Your task to perform on an android device: change text size in settings app Image 0: 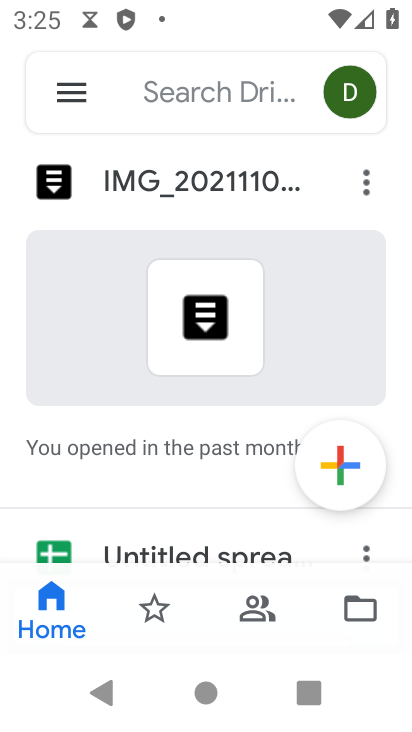
Step 0: press back button
Your task to perform on an android device: change text size in settings app Image 1: 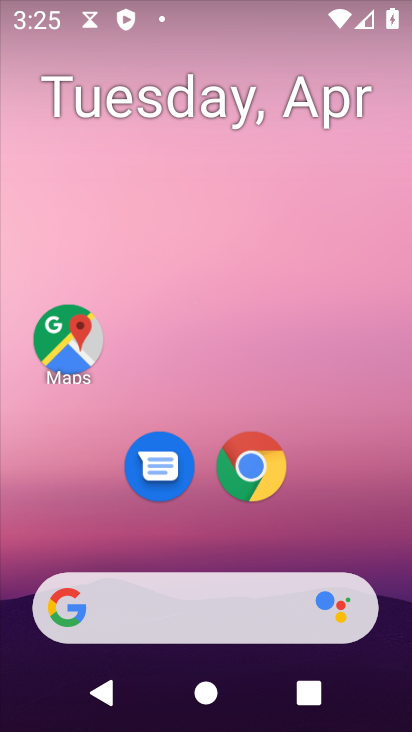
Step 1: drag from (342, 513) to (226, 15)
Your task to perform on an android device: change text size in settings app Image 2: 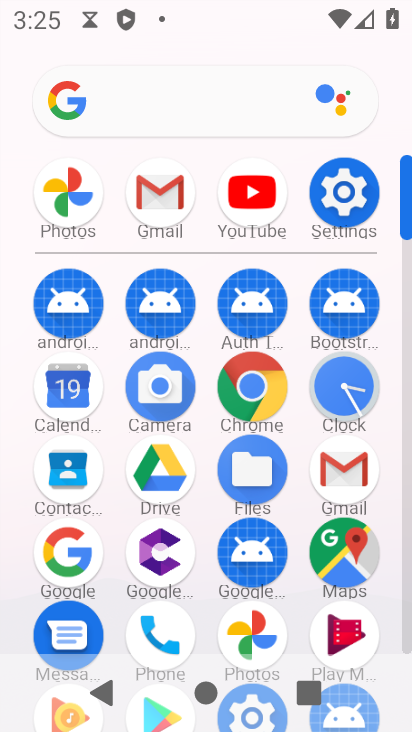
Step 2: click (342, 187)
Your task to perform on an android device: change text size in settings app Image 3: 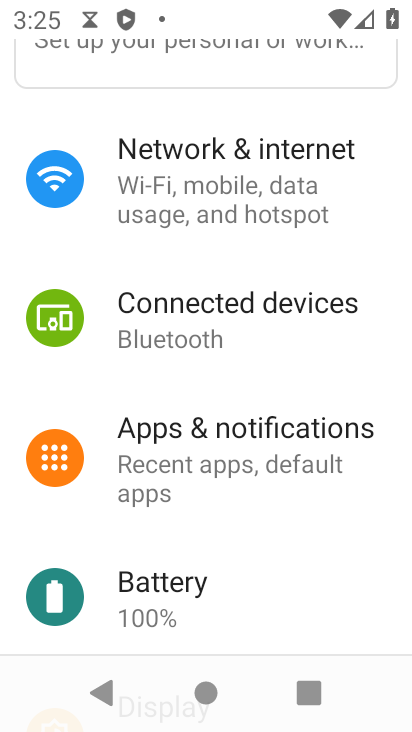
Step 3: drag from (280, 425) to (245, 89)
Your task to perform on an android device: change text size in settings app Image 4: 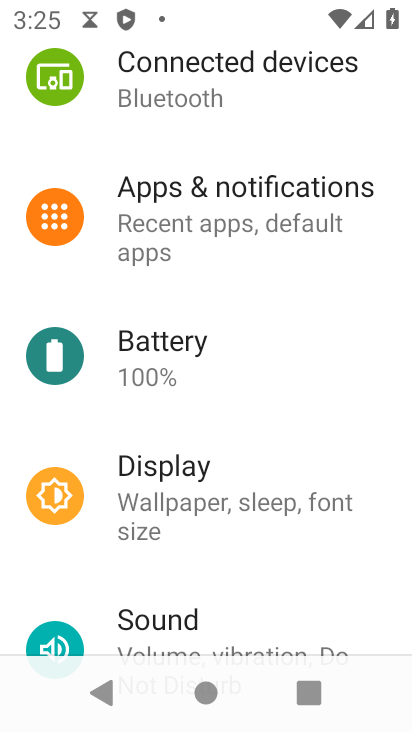
Step 4: drag from (254, 463) to (258, 166)
Your task to perform on an android device: change text size in settings app Image 5: 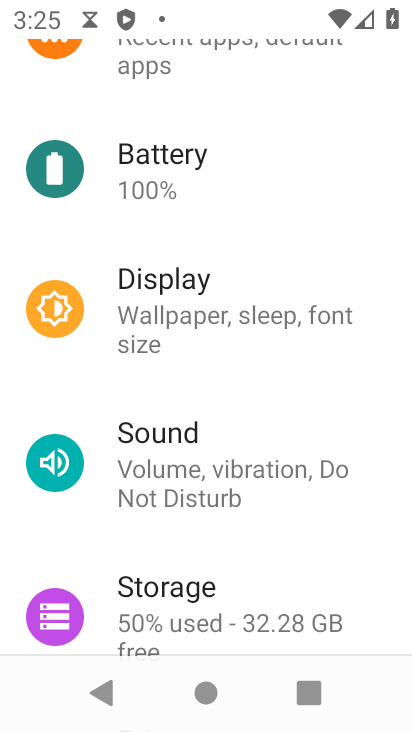
Step 5: drag from (314, 476) to (287, 168)
Your task to perform on an android device: change text size in settings app Image 6: 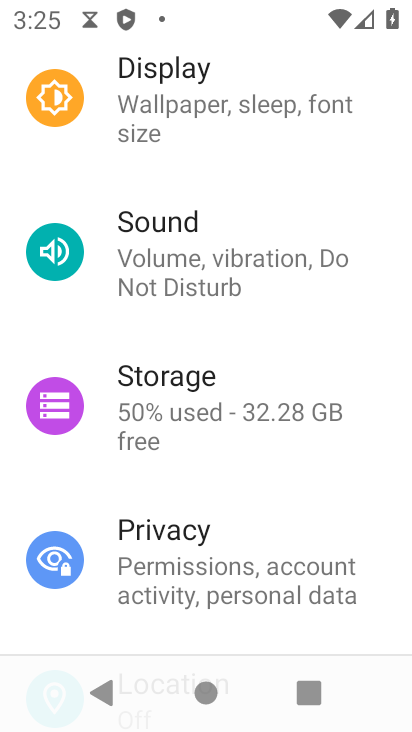
Step 6: drag from (277, 483) to (248, 144)
Your task to perform on an android device: change text size in settings app Image 7: 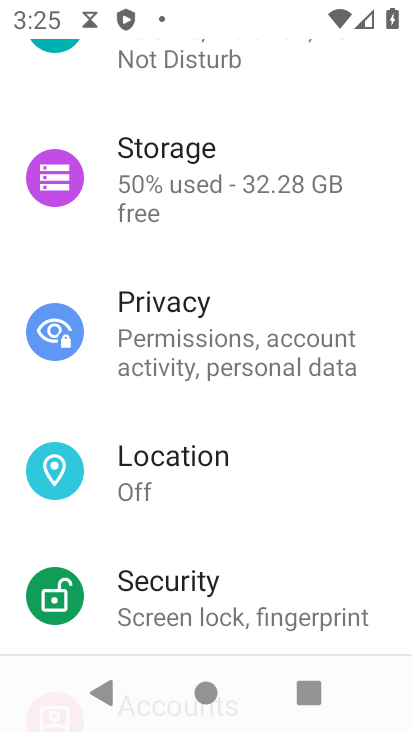
Step 7: drag from (253, 471) to (233, 142)
Your task to perform on an android device: change text size in settings app Image 8: 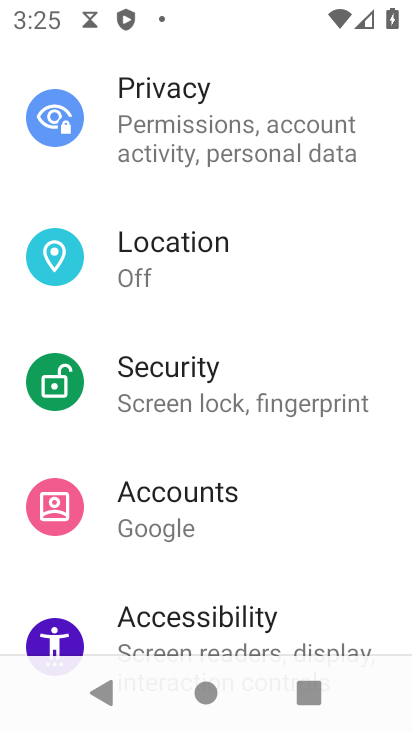
Step 8: drag from (254, 488) to (270, 159)
Your task to perform on an android device: change text size in settings app Image 9: 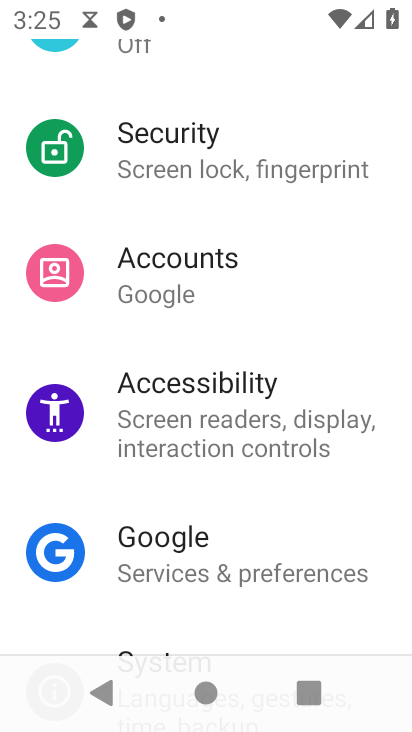
Step 9: drag from (248, 448) to (241, 182)
Your task to perform on an android device: change text size in settings app Image 10: 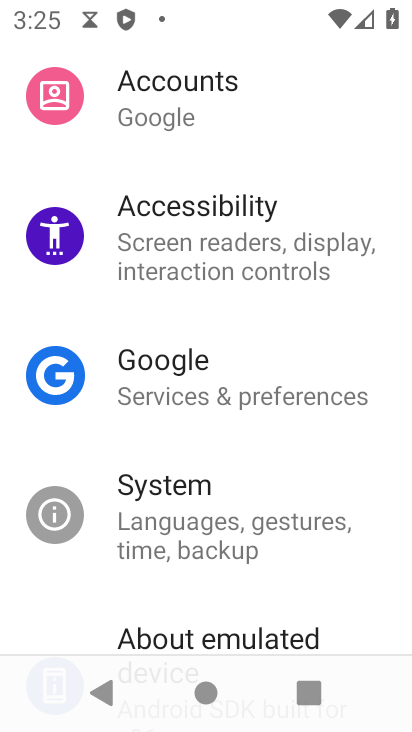
Step 10: drag from (256, 145) to (245, 507)
Your task to perform on an android device: change text size in settings app Image 11: 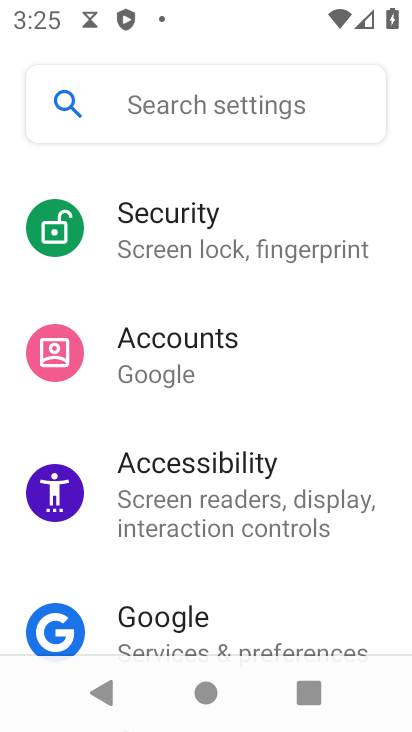
Step 11: drag from (269, 383) to (269, 534)
Your task to perform on an android device: change text size in settings app Image 12: 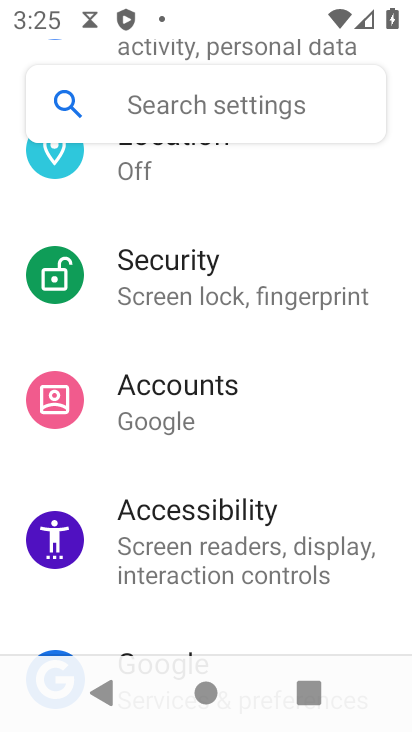
Step 12: drag from (261, 219) to (239, 510)
Your task to perform on an android device: change text size in settings app Image 13: 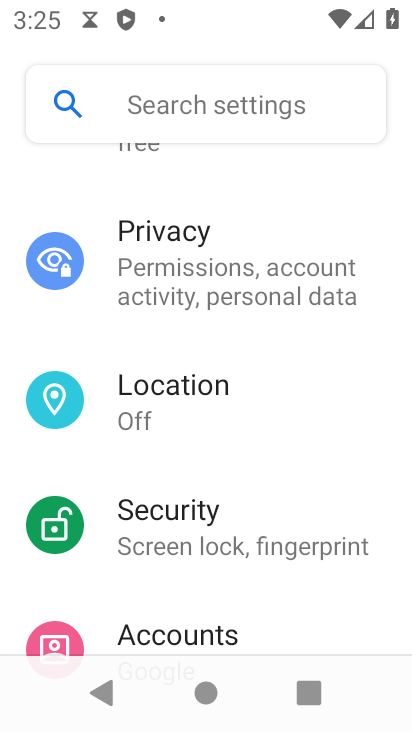
Step 13: drag from (272, 257) to (260, 498)
Your task to perform on an android device: change text size in settings app Image 14: 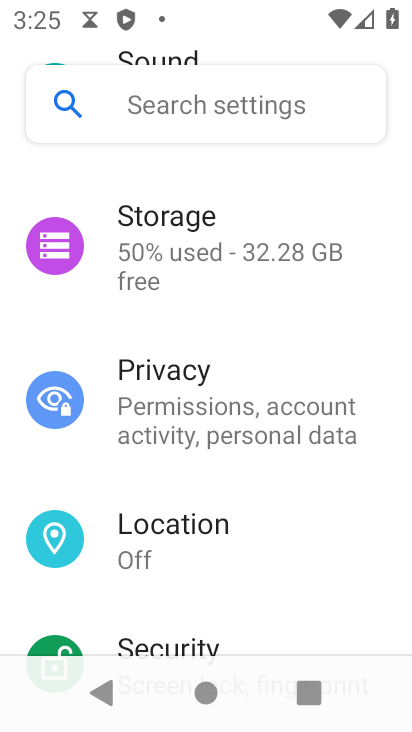
Step 14: drag from (269, 274) to (224, 585)
Your task to perform on an android device: change text size in settings app Image 15: 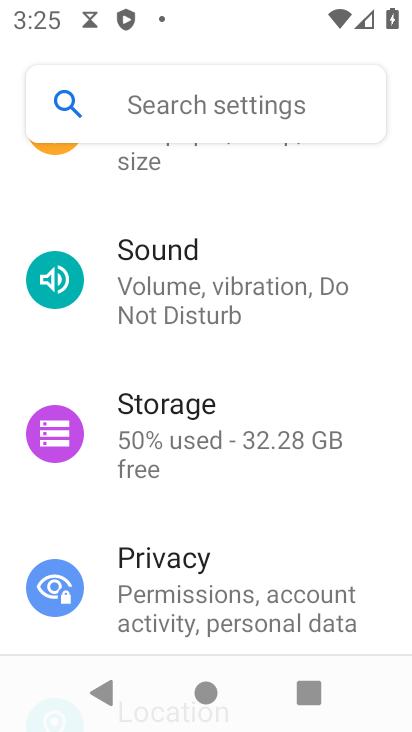
Step 15: drag from (239, 352) to (239, 506)
Your task to perform on an android device: change text size in settings app Image 16: 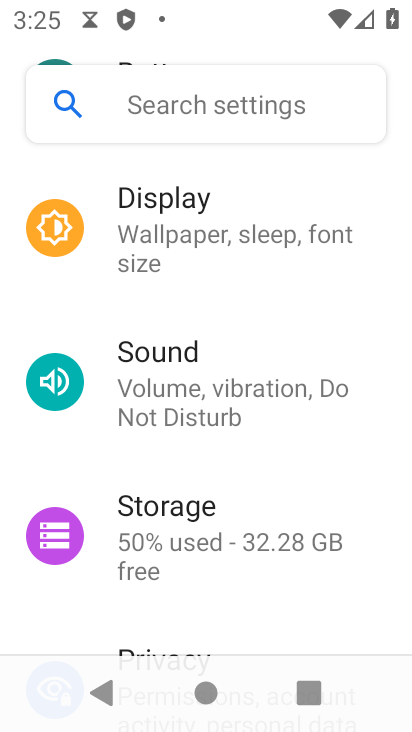
Step 16: click (218, 216)
Your task to perform on an android device: change text size in settings app Image 17: 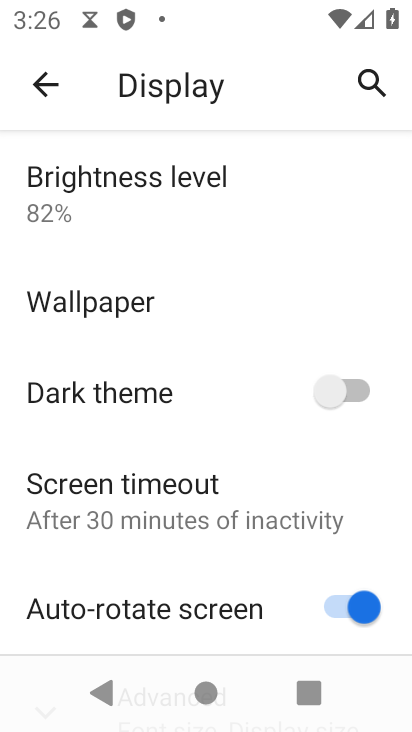
Step 17: drag from (156, 486) to (171, 263)
Your task to perform on an android device: change text size in settings app Image 18: 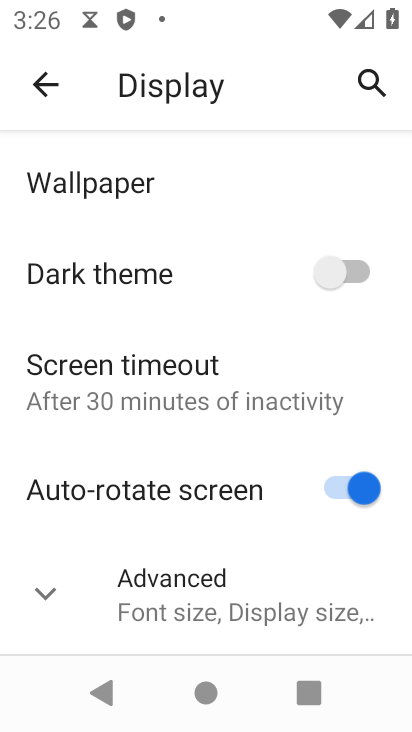
Step 18: click (122, 588)
Your task to perform on an android device: change text size in settings app Image 19: 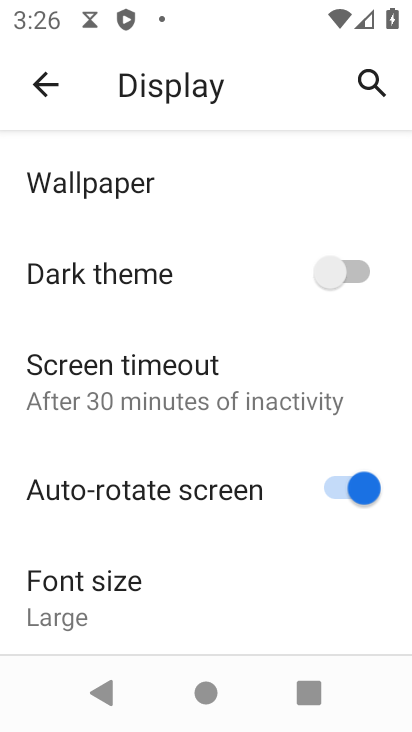
Step 19: click (139, 623)
Your task to perform on an android device: change text size in settings app Image 20: 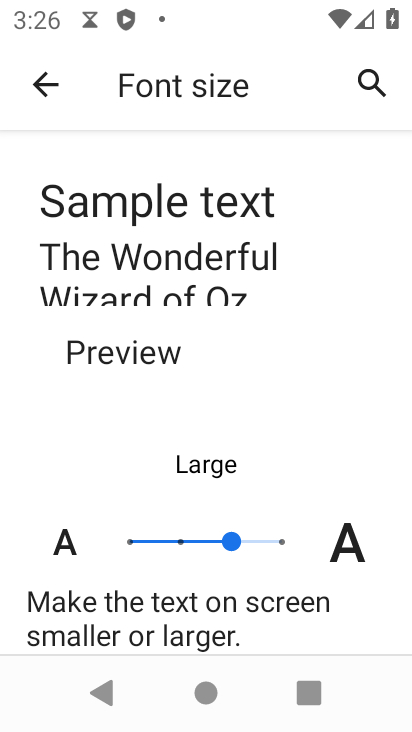
Step 20: click (278, 536)
Your task to perform on an android device: change text size in settings app Image 21: 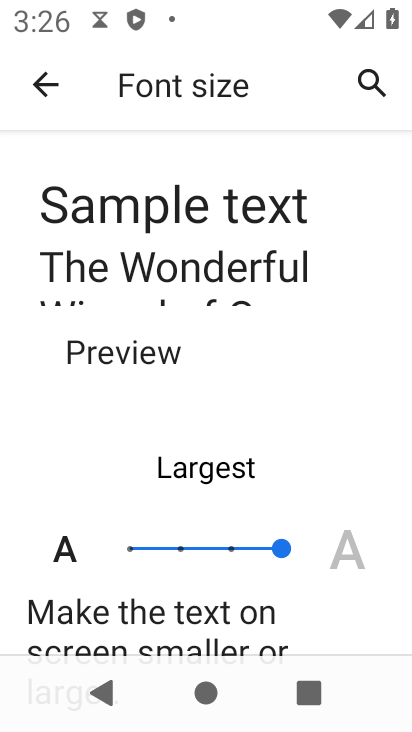
Step 21: task complete